Your task to perform on an android device: turn off smart reply in the gmail app Image 0: 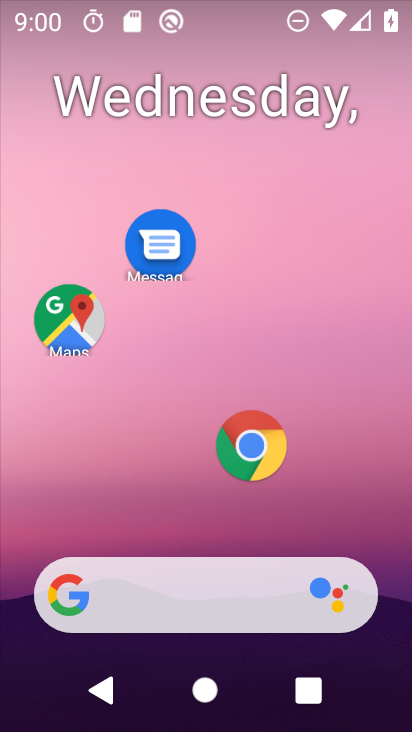
Step 0: press home button
Your task to perform on an android device: turn off smart reply in the gmail app Image 1: 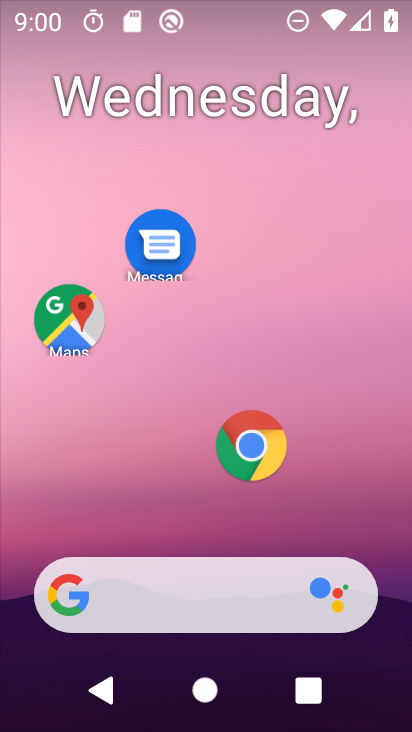
Step 1: drag from (201, 526) to (215, 32)
Your task to perform on an android device: turn off smart reply in the gmail app Image 2: 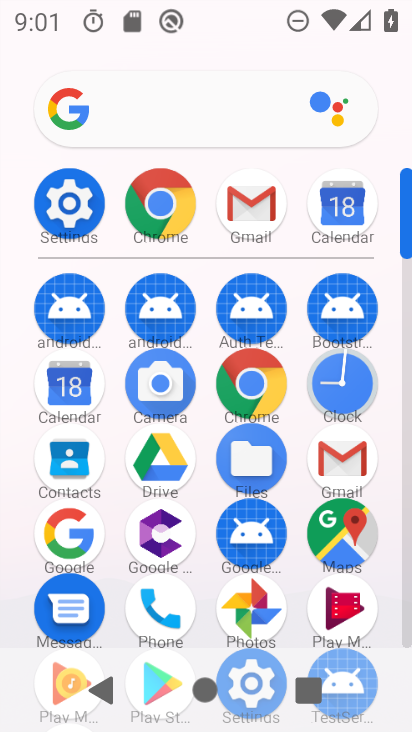
Step 2: click (345, 457)
Your task to perform on an android device: turn off smart reply in the gmail app Image 3: 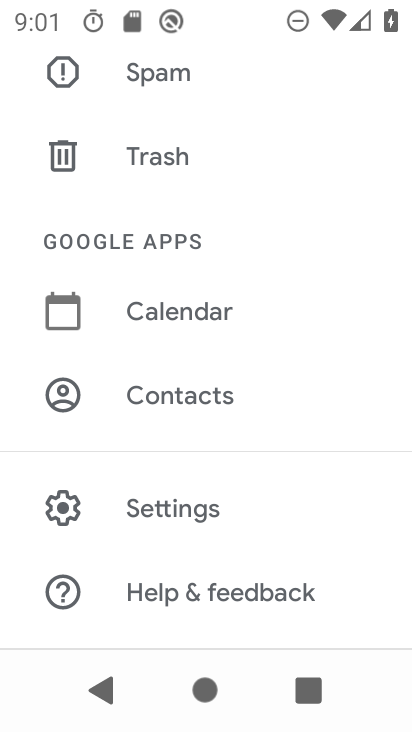
Step 3: click (117, 506)
Your task to perform on an android device: turn off smart reply in the gmail app Image 4: 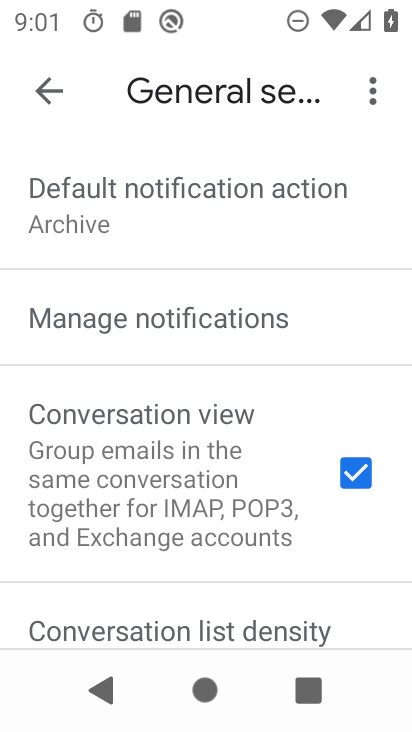
Step 4: click (54, 93)
Your task to perform on an android device: turn off smart reply in the gmail app Image 5: 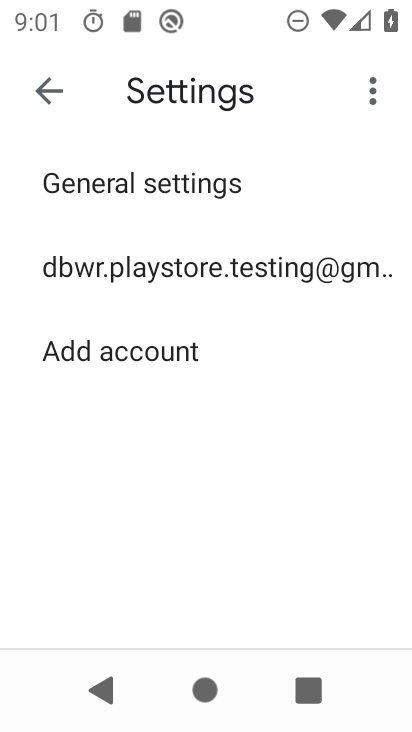
Step 5: click (225, 265)
Your task to perform on an android device: turn off smart reply in the gmail app Image 6: 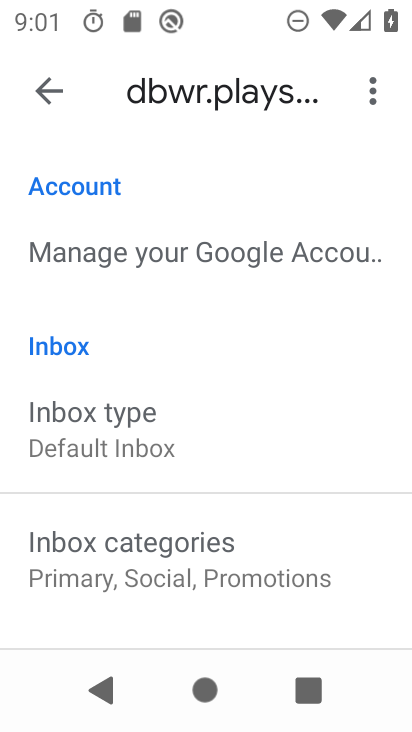
Step 6: drag from (224, 596) to (219, 85)
Your task to perform on an android device: turn off smart reply in the gmail app Image 7: 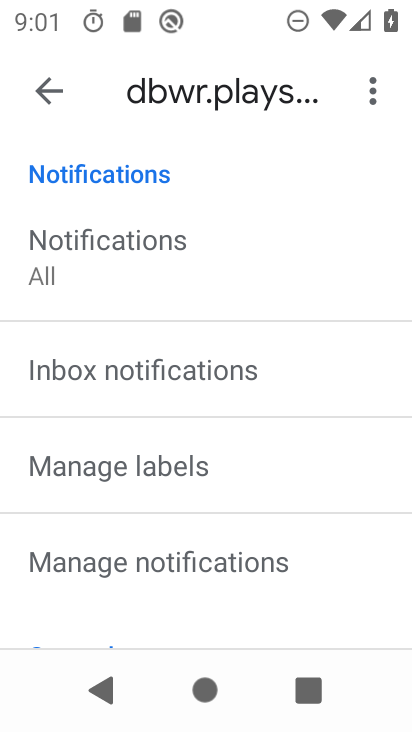
Step 7: drag from (219, 602) to (236, 134)
Your task to perform on an android device: turn off smart reply in the gmail app Image 8: 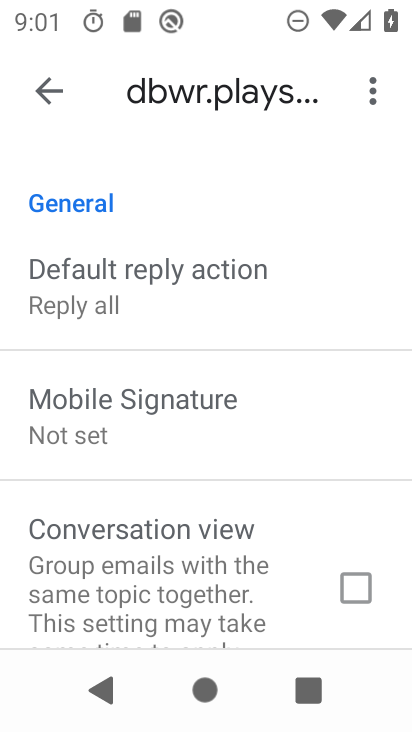
Step 8: drag from (272, 601) to (273, 151)
Your task to perform on an android device: turn off smart reply in the gmail app Image 9: 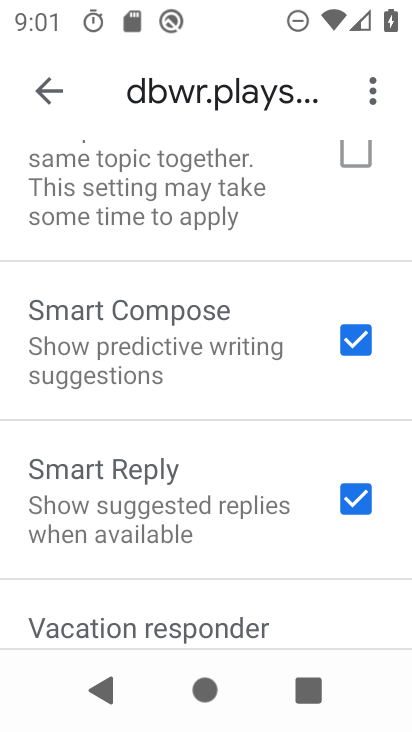
Step 9: click (345, 498)
Your task to perform on an android device: turn off smart reply in the gmail app Image 10: 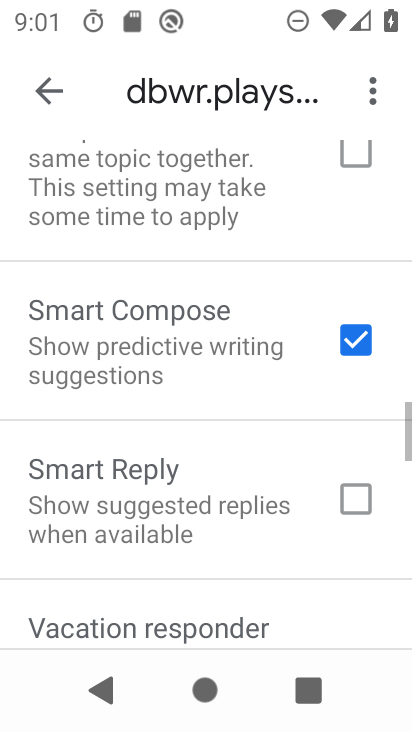
Step 10: task complete